Your task to perform on an android device: Clear the shopping cart on costco.com. Image 0: 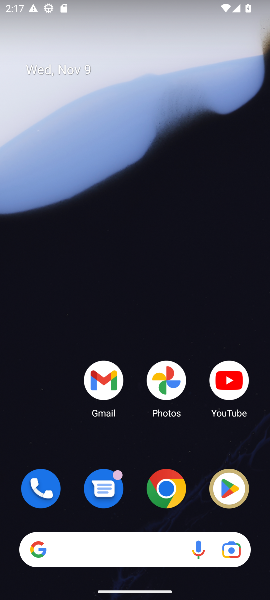
Step 0: drag from (132, 453) to (133, 22)
Your task to perform on an android device: Clear the shopping cart on costco.com. Image 1: 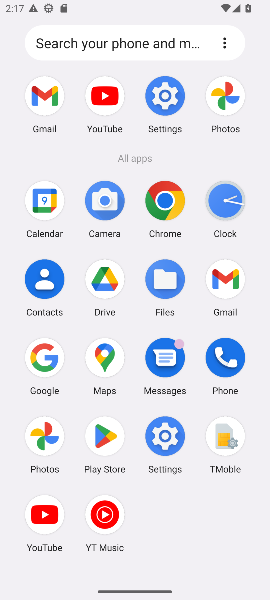
Step 1: click (169, 199)
Your task to perform on an android device: Clear the shopping cart on costco.com. Image 2: 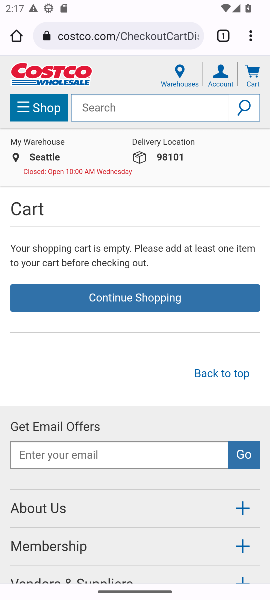
Step 2: task complete